Your task to perform on an android device: change keyboard looks Image 0: 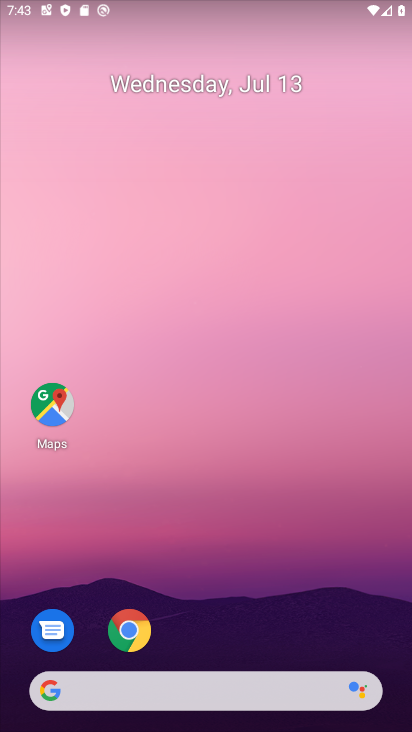
Step 0: drag from (348, 616) to (348, 64)
Your task to perform on an android device: change keyboard looks Image 1: 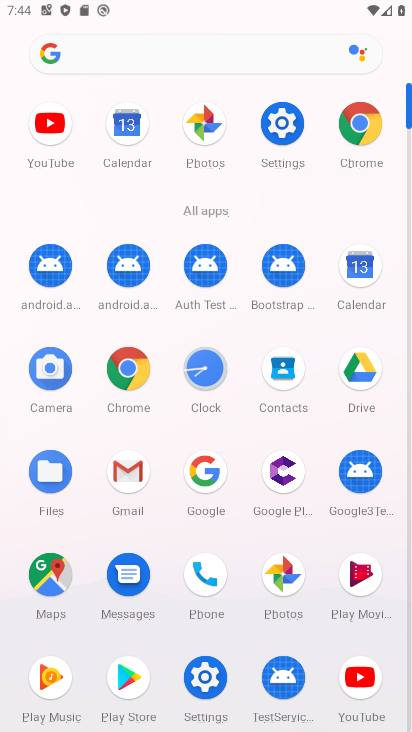
Step 1: click (287, 132)
Your task to perform on an android device: change keyboard looks Image 2: 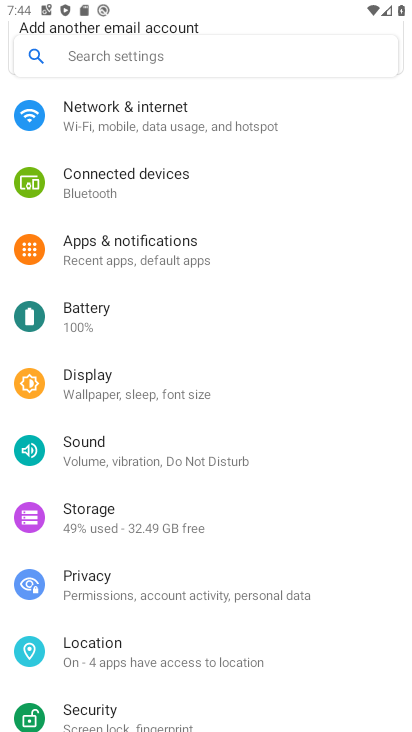
Step 2: drag from (348, 415) to (348, 213)
Your task to perform on an android device: change keyboard looks Image 3: 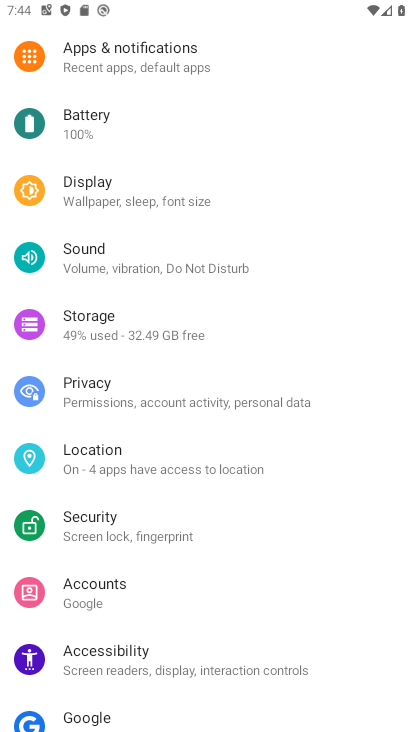
Step 3: drag from (345, 334) to (344, 93)
Your task to perform on an android device: change keyboard looks Image 4: 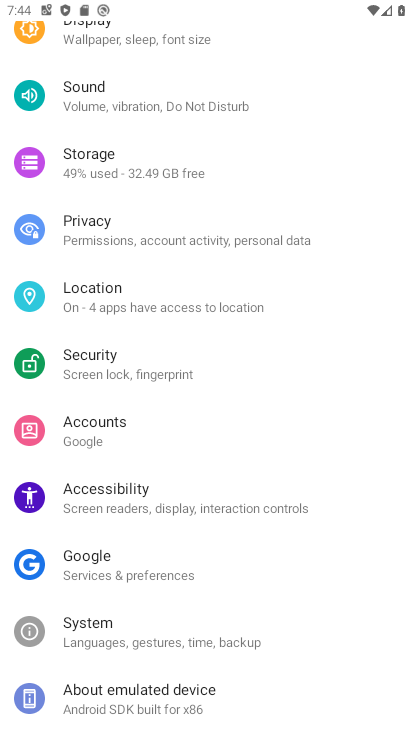
Step 4: click (234, 636)
Your task to perform on an android device: change keyboard looks Image 5: 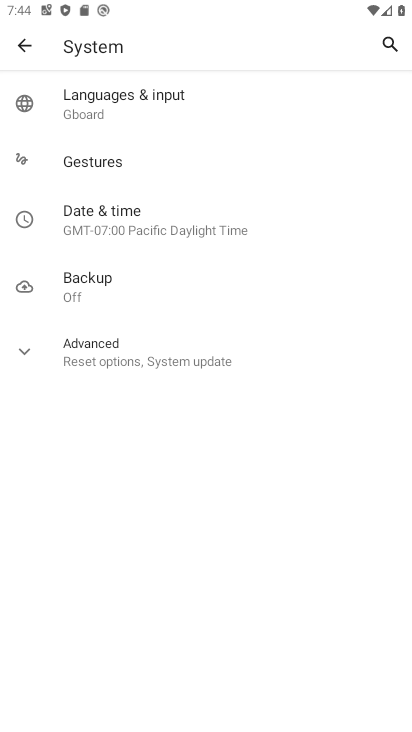
Step 5: click (135, 94)
Your task to perform on an android device: change keyboard looks Image 6: 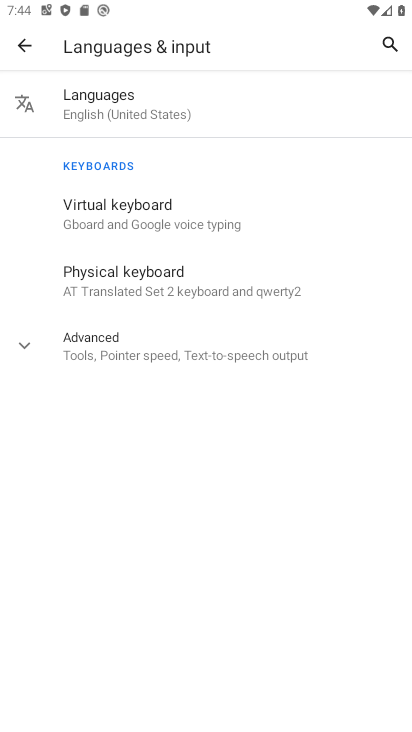
Step 6: click (140, 223)
Your task to perform on an android device: change keyboard looks Image 7: 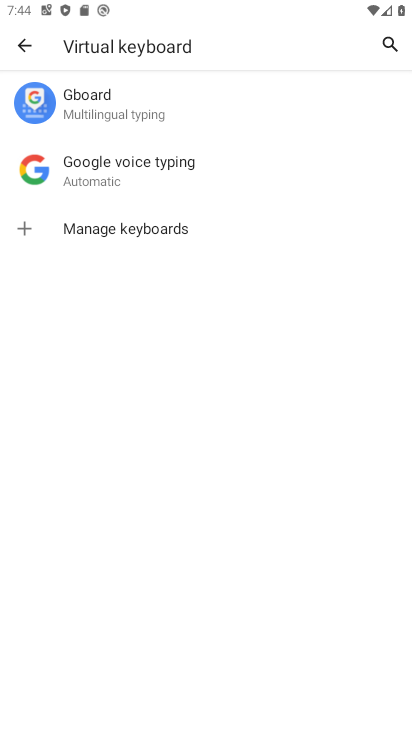
Step 7: click (139, 99)
Your task to perform on an android device: change keyboard looks Image 8: 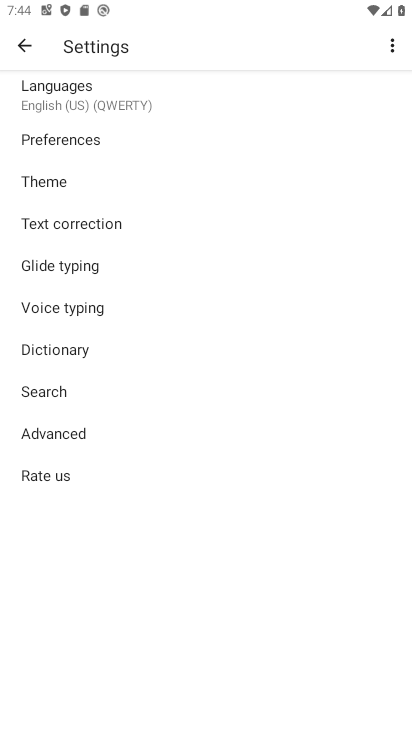
Step 8: click (79, 185)
Your task to perform on an android device: change keyboard looks Image 9: 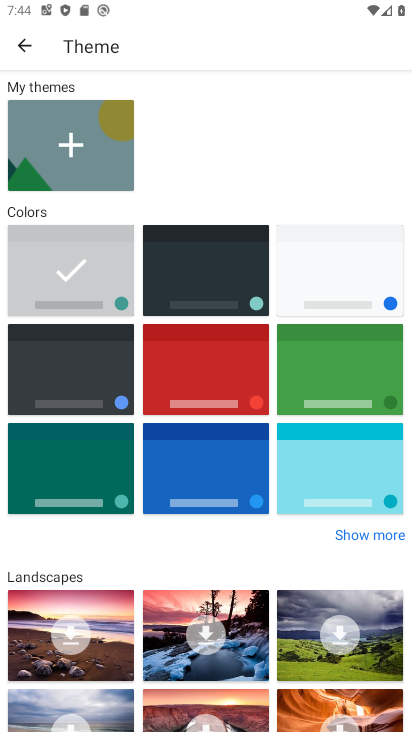
Step 9: click (213, 380)
Your task to perform on an android device: change keyboard looks Image 10: 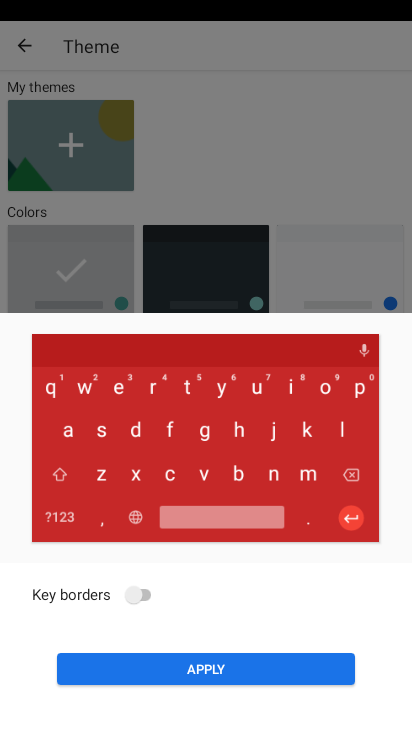
Step 10: click (272, 667)
Your task to perform on an android device: change keyboard looks Image 11: 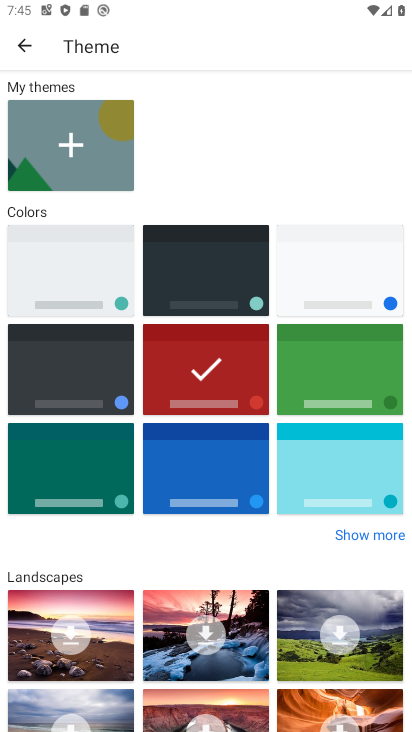
Step 11: task complete